Your task to perform on an android device: open chrome privacy settings Image 0: 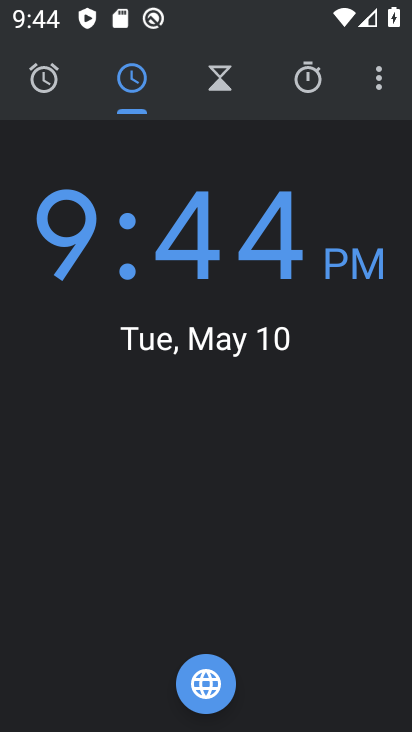
Step 0: drag from (328, 670) to (153, 116)
Your task to perform on an android device: open chrome privacy settings Image 1: 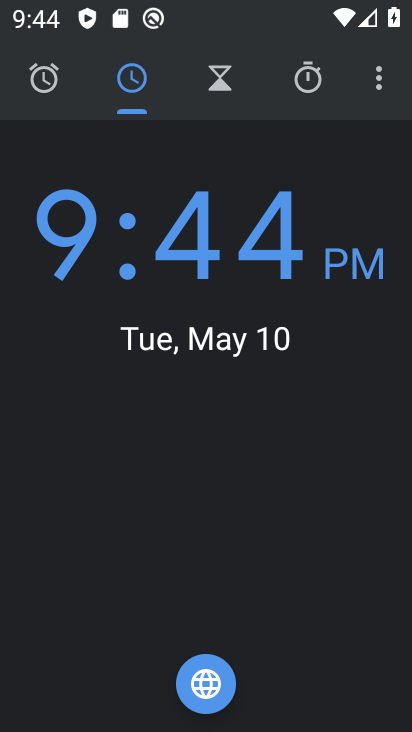
Step 1: press back button
Your task to perform on an android device: open chrome privacy settings Image 2: 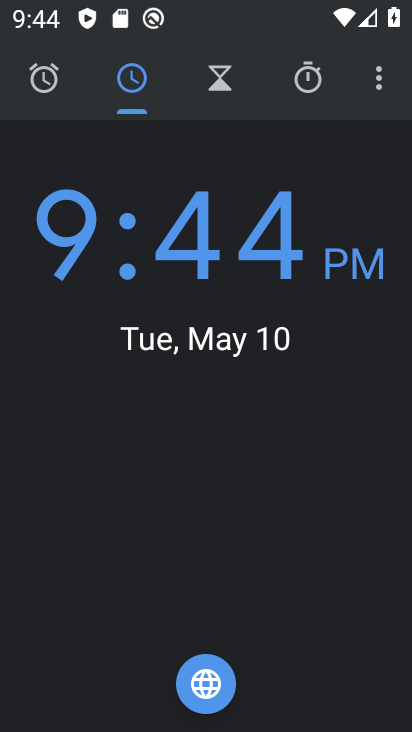
Step 2: press back button
Your task to perform on an android device: open chrome privacy settings Image 3: 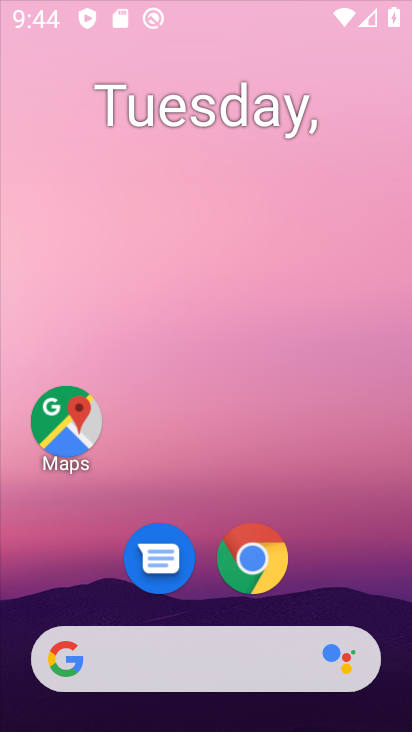
Step 3: press back button
Your task to perform on an android device: open chrome privacy settings Image 4: 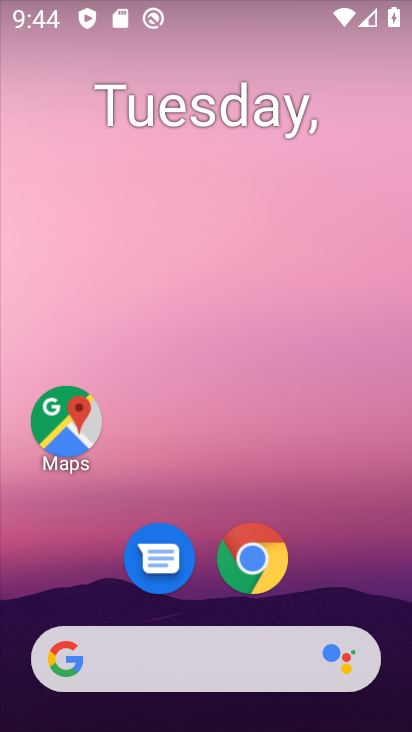
Step 4: drag from (320, 500) to (212, 145)
Your task to perform on an android device: open chrome privacy settings Image 5: 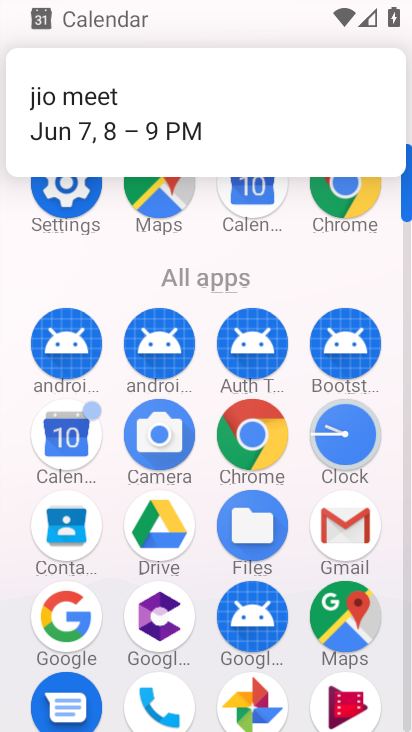
Step 5: click (73, 188)
Your task to perform on an android device: open chrome privacy settings Image 6: 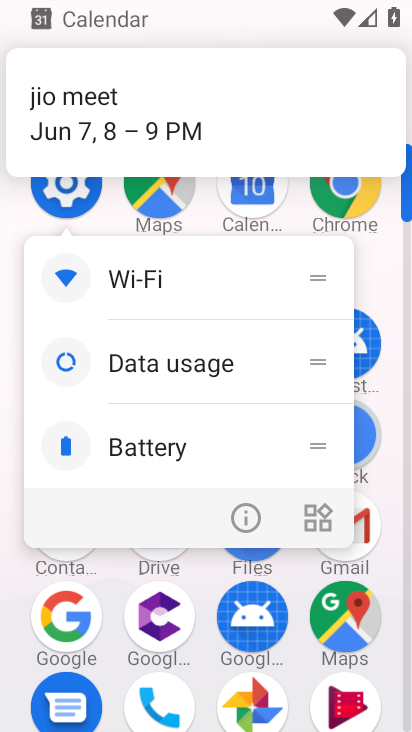
Step 6: click (373, 275)
Your task to perform on an android device: open chrome privacy settings Image 7: 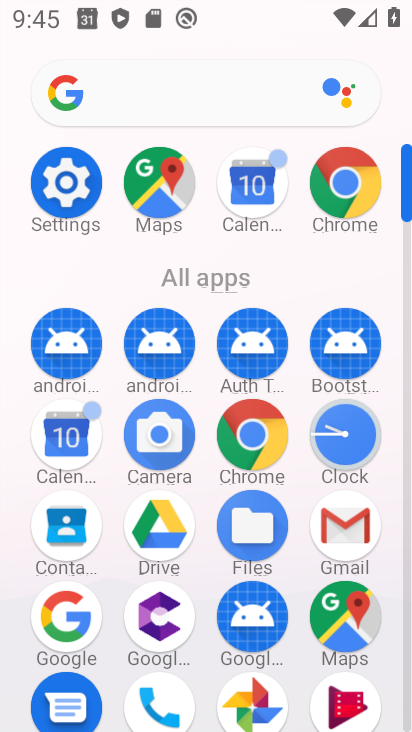
Step 7: click (67, 184)
Your task to perform on an android device: open chrome privacy settings Image 8: 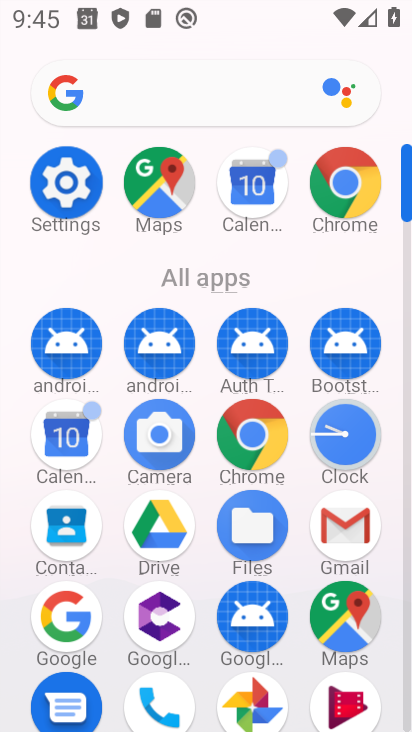
Step 8: click (67, 184)
Your task to perform on an android device: open chrome privacy settings Image 9: 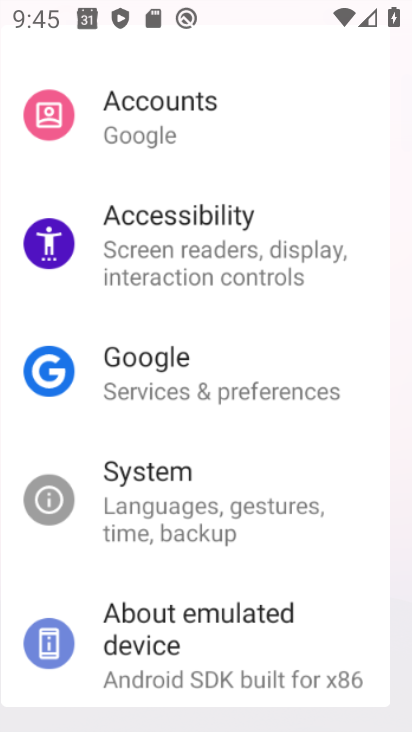
Step 9: click (67, 184)
Your task to perform on an android device: open chrome privacy settings Image 10: 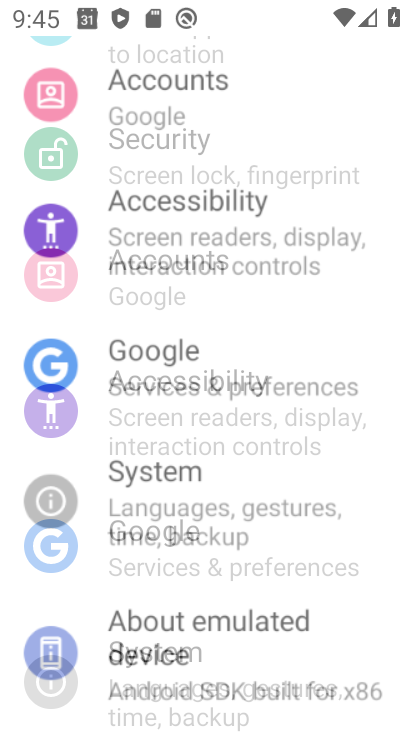
Step 10: click (67, 184)
Your task to perform on an android device: open chrome privacy settings Image 11: 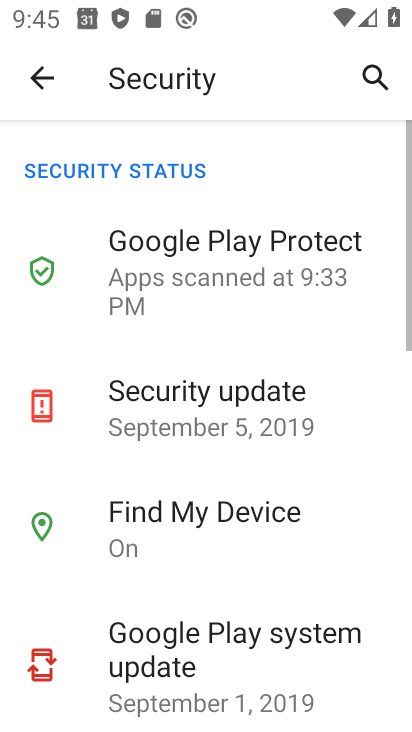
Step 11: click (41, 78)
Your task to perform on an android device: open chrome privacy settings Image 12: 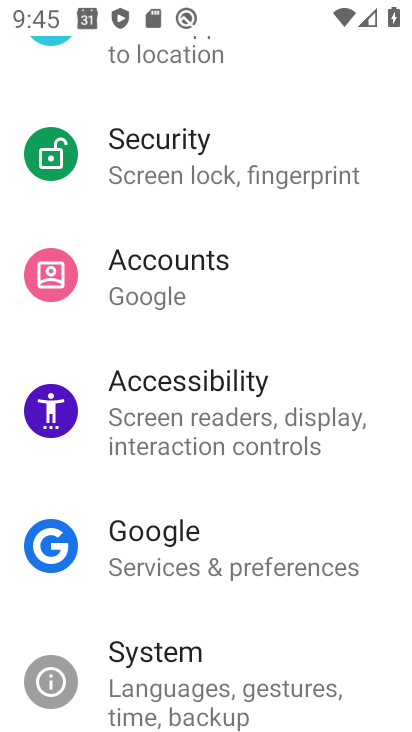
Step 12: drag from (200, 458) to (205, 571)
Your task to perform on an android device: open chrome privacy settings Image 13: 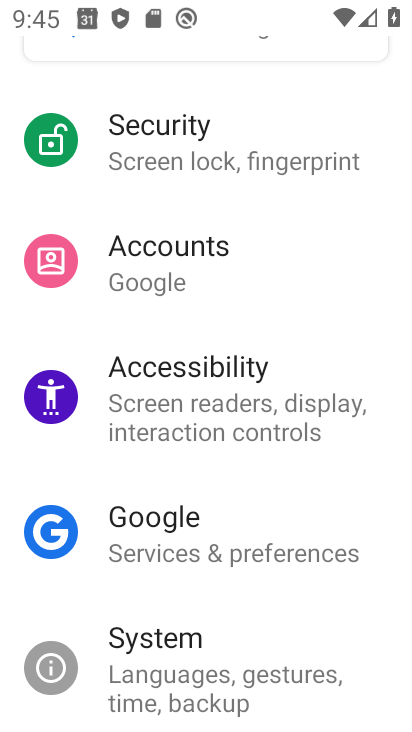
Step 13: drag from (198, 478) to (179, 304)
Your task to perform on an android device: open chrome privacy settings Image 14: 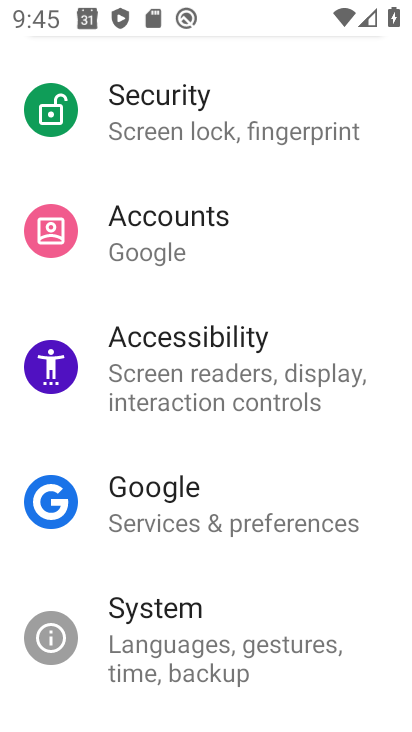
Step 14: drag from (106, 198) to (136, 461)
Your task to perform on an android device: open chrome privacy settings Image 15: 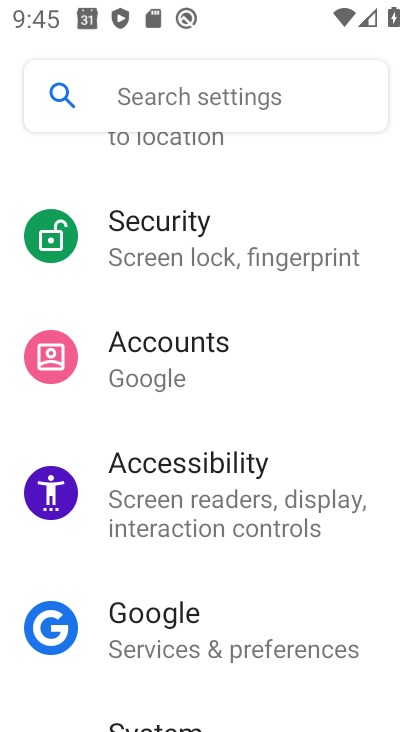
Step 15: drag from (145, 243) to (176, 470)
Your task to perform on an android device: open chrome privacy settings Image 16: 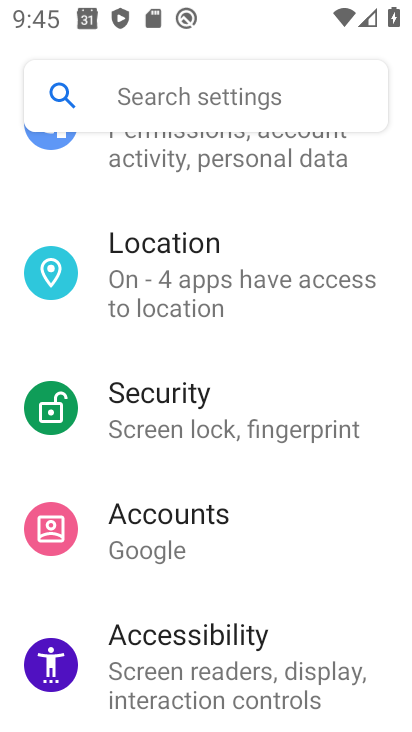
Step 16: drag from (148, 280) to (194, 549)
Your task to perform on an android device: open chrome privacy settings Image 17: 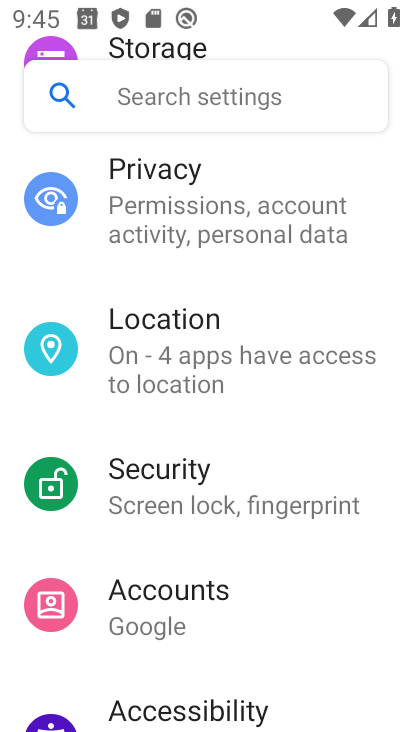
Step 17: drag from (139, 344) to (171, 506)
Your task to perform on an android device: open chrome privacy settings Image 18: 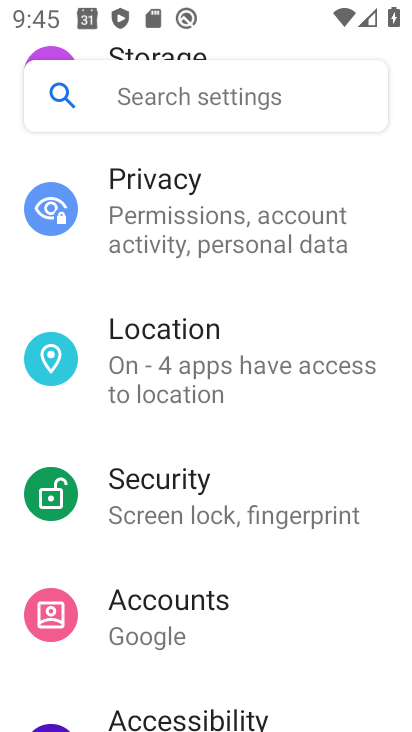
Step 18: click (143, 213)
Your task to perform on an android device: open chrome privacy settings Image 19: 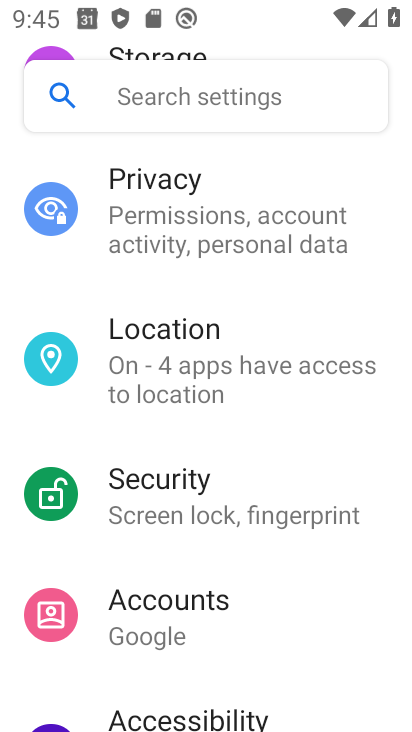
Step 19: click (145, 213)
Your task to perform on an android device: open chrome privacy settings Image 20: 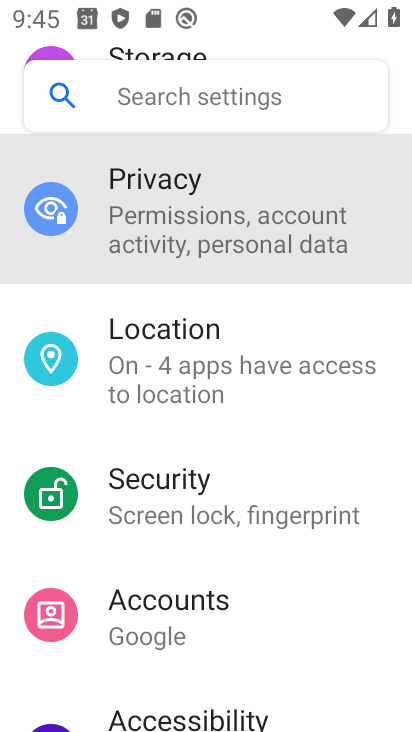
Step 20: click (146, 214)
Your task to perform on an android device: open chrome privacy settings Image 21: 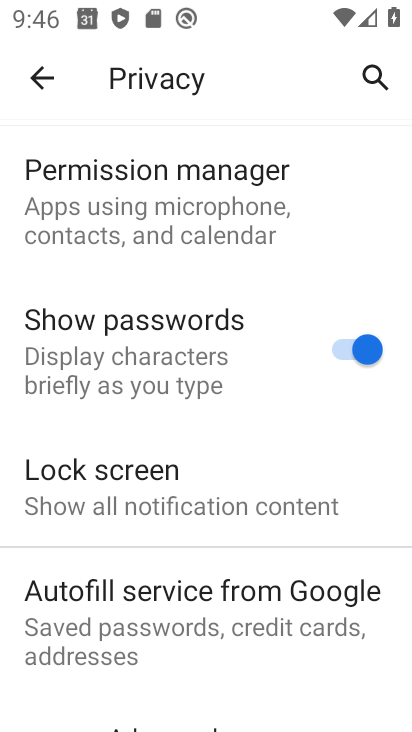
Step 21: task complete